Your task to perform on an android device: add a contact in the contacts app Image 0: 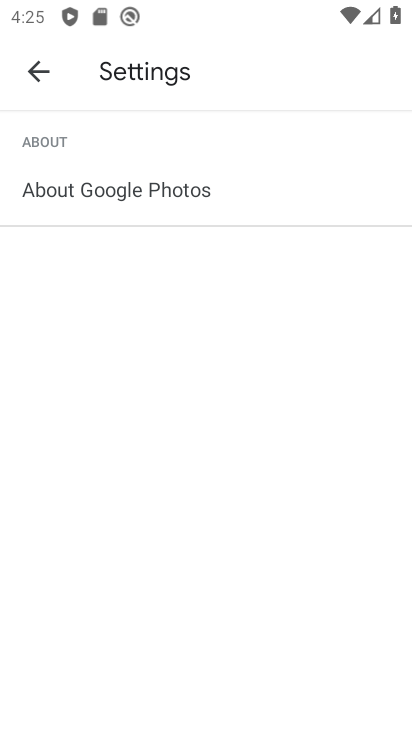
Step 0: press home button
Your task to perform on an android device: add a contact in the contacts app Image 1: 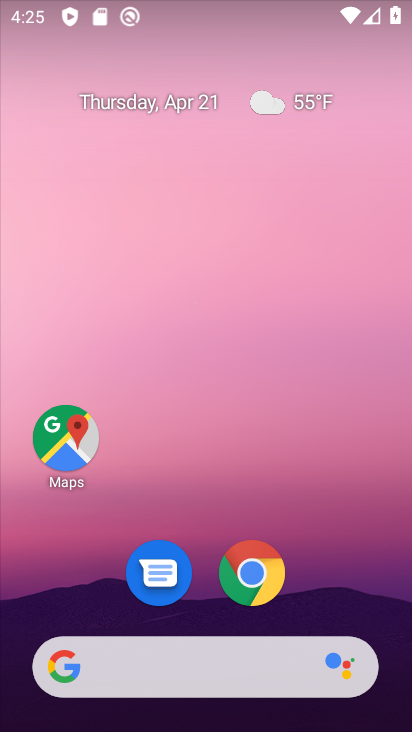
Step 1: drag from (319, 600) to (263, 122)
Your task to perform on an android device: add a contact in the contacts app Image 2: 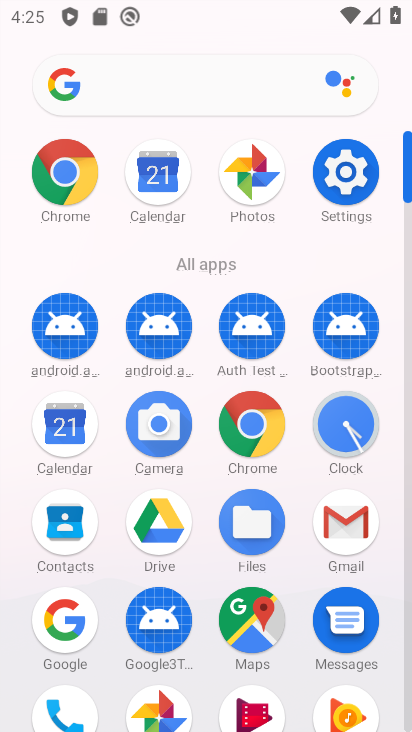
Step 2: click (71, 544)
Your task to perform on an android device: add a contact in the contacts app Image 3: 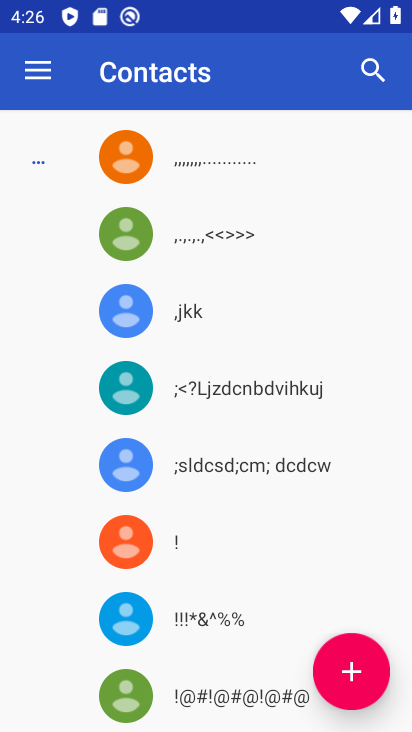
Step 3: click (357, 675)
Your task to perform on an android device: add a contact in the contacts app Image 4: 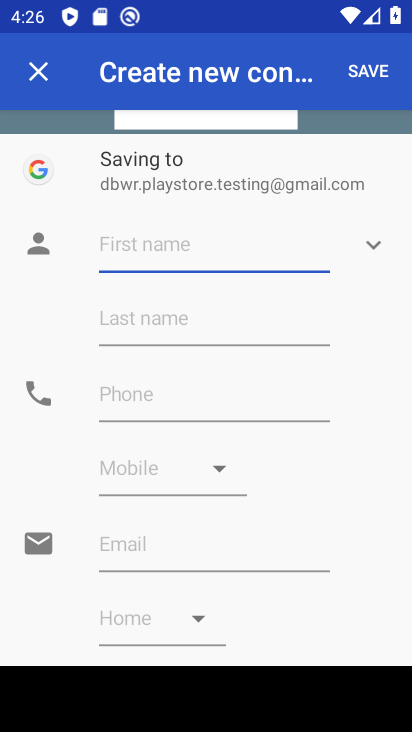
Step 4: click (202, 246)
Your task to perform on an android device: add a contact in the contacts app Image 5: 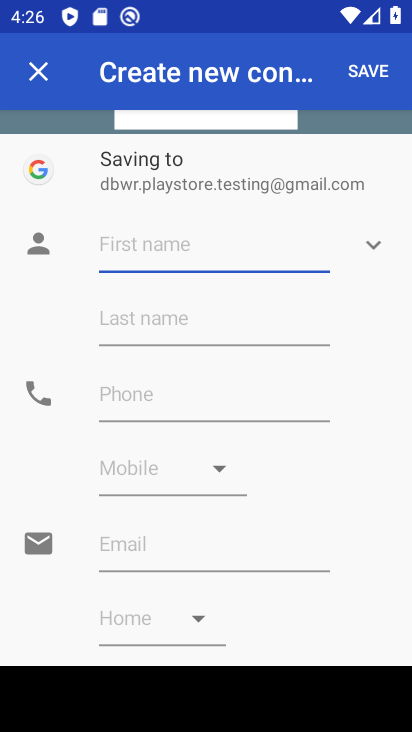
Step 5: type "hhuih"
Your task to perform on an android device: add a contact in the contacts app Image 6: 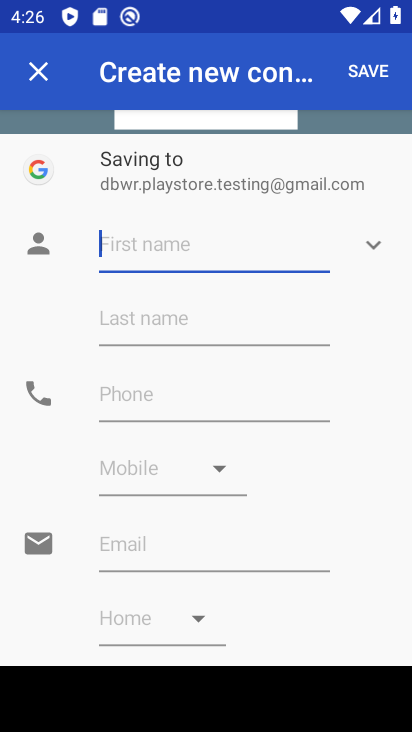
Step 6: click (226, 410)
Your task to perform on an android device: add a contact in the contacts app Image 7: 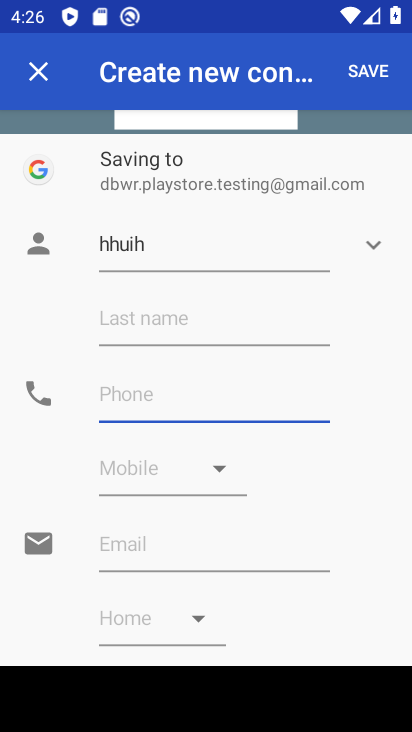
Step 7: type "798798778"
Your task to perform on an android device: add a contact in the contacts app Image 8: 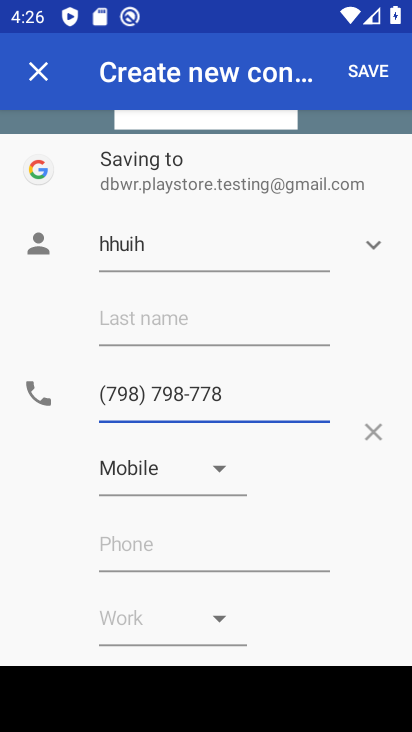
Step 8: click (387, 80)
Your task to perform on an android device: add a contact in the contacts app Image 9: 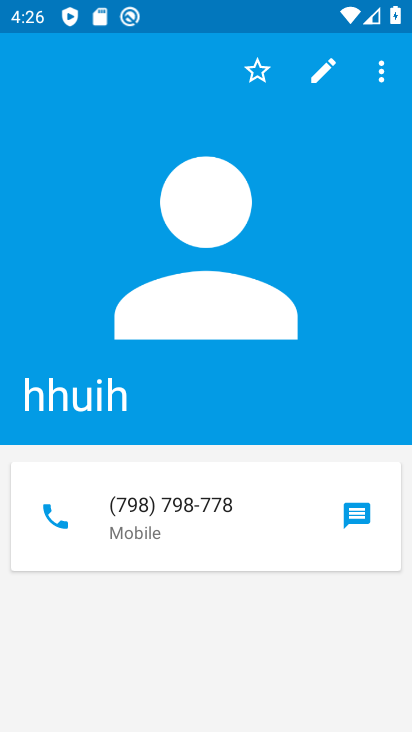
Step 9: task complete